Your task to perform on an android device: What's the news in Myanmar? Image 0: 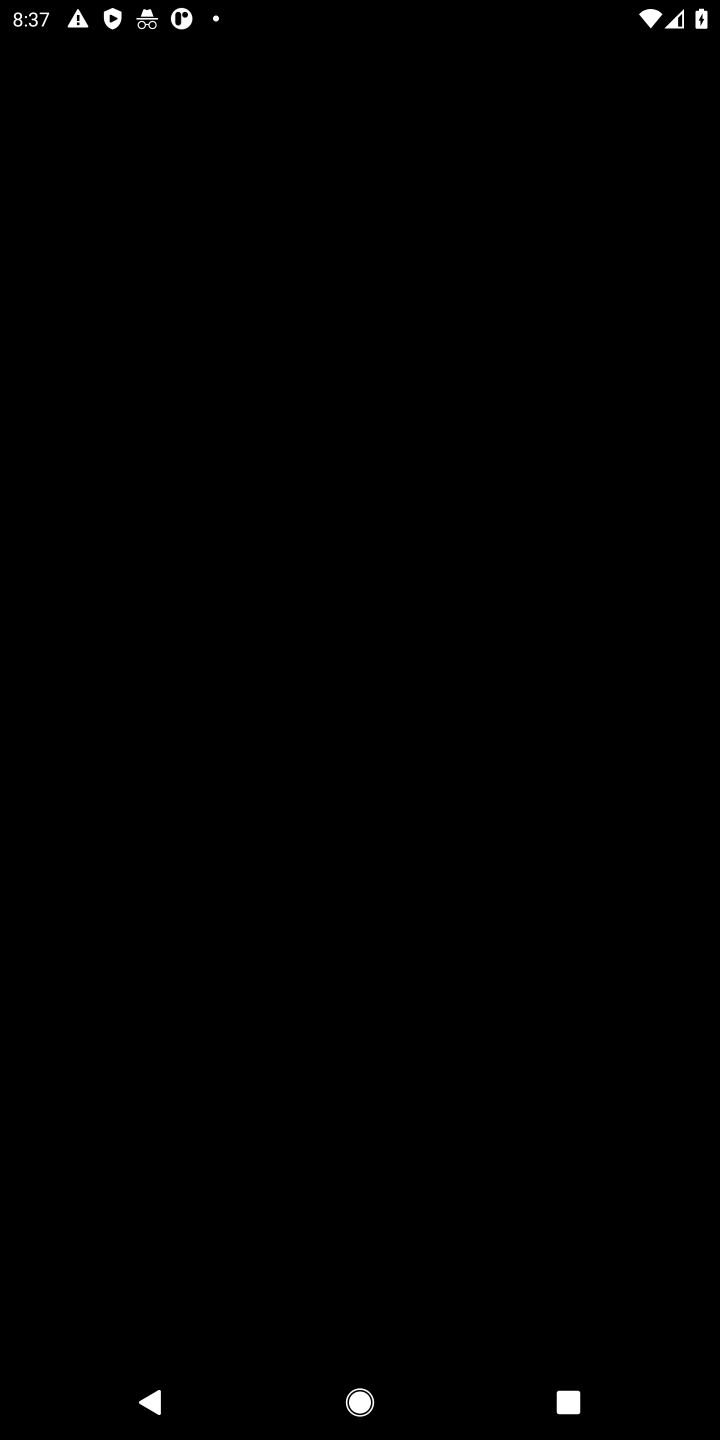
Step 0: press home button
Your task to perform on an android device: What's the news in Myanmar? Image 1: 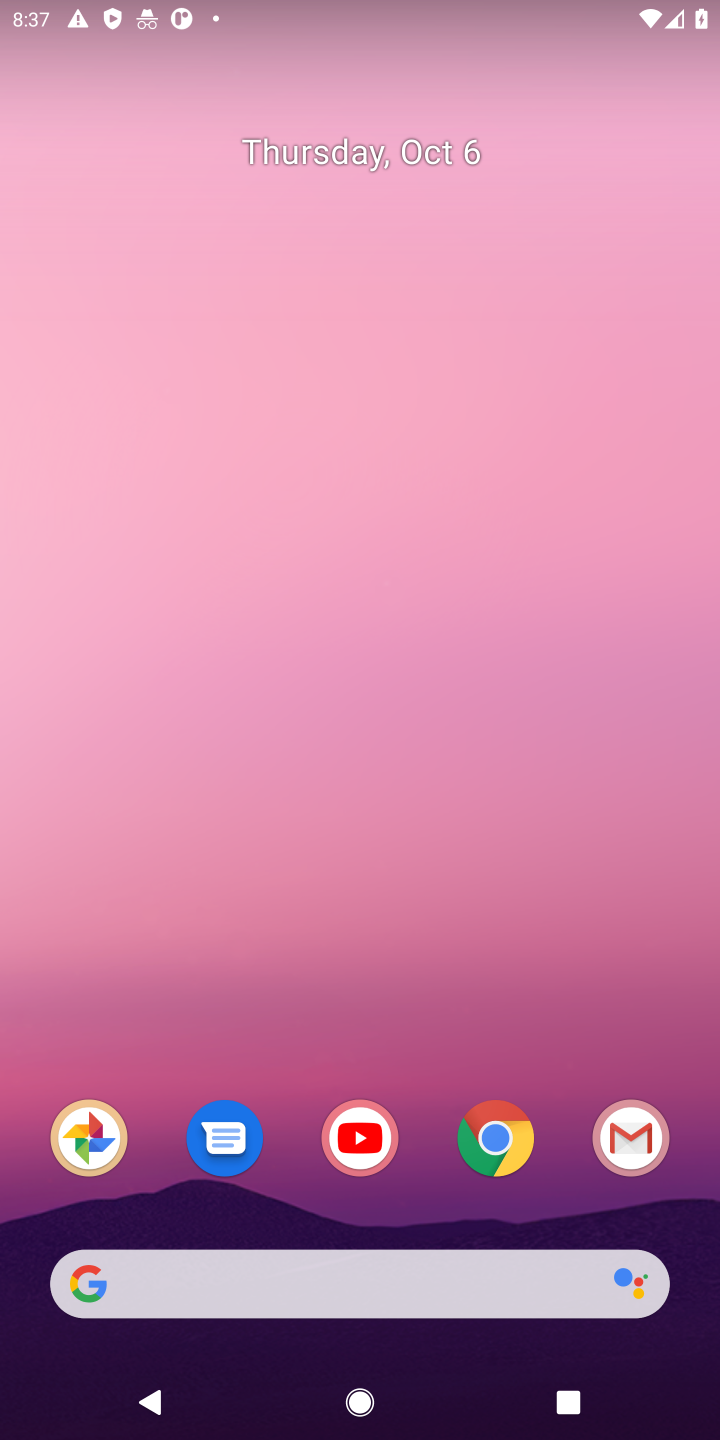
Step 1: click (500, 1132)
Your task to perform on an android device: What's the news in Myanmar? Image 2: 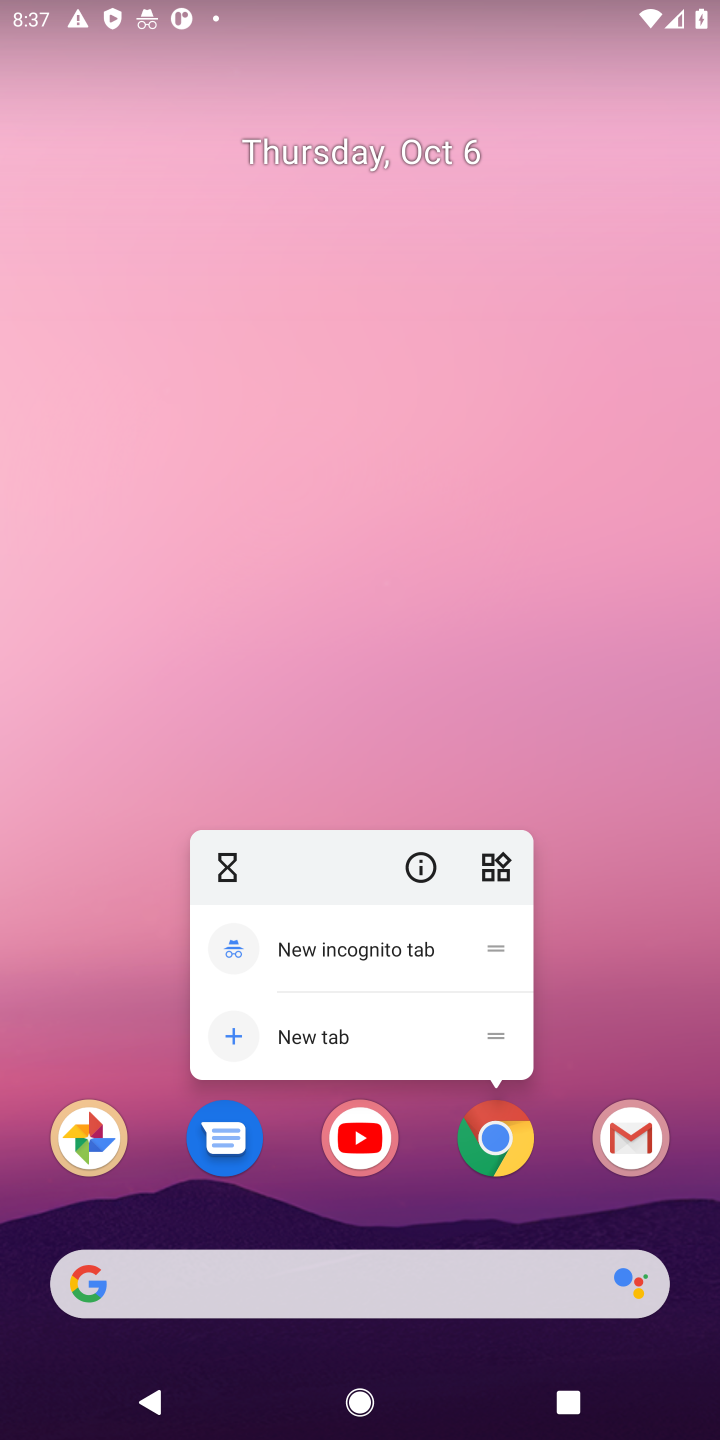
Step 2: click (512, 1138)
Your task to perform on an android device: What's the news in Myanmar? Image 3: 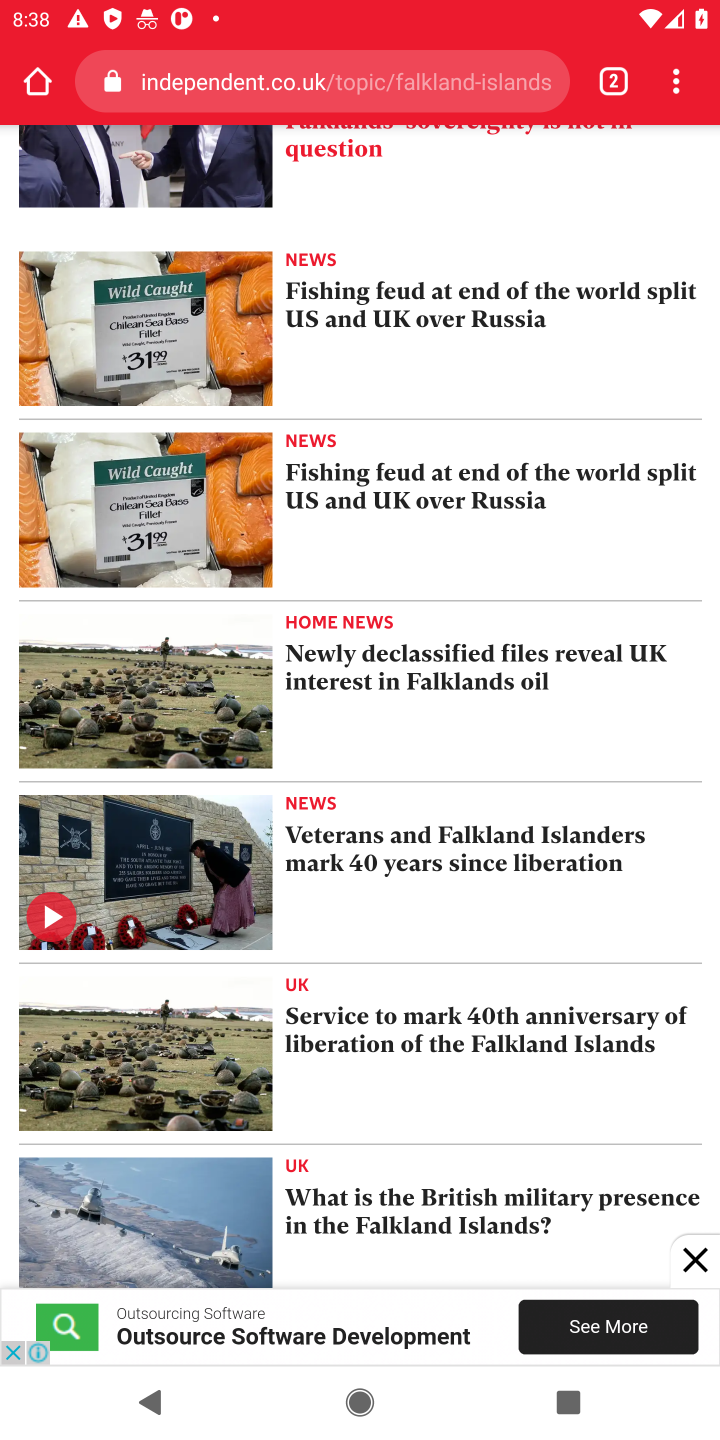
Step 3: click (418, 80)
Your task to perform on an android device: What's the news in Myanmar? Image 4: 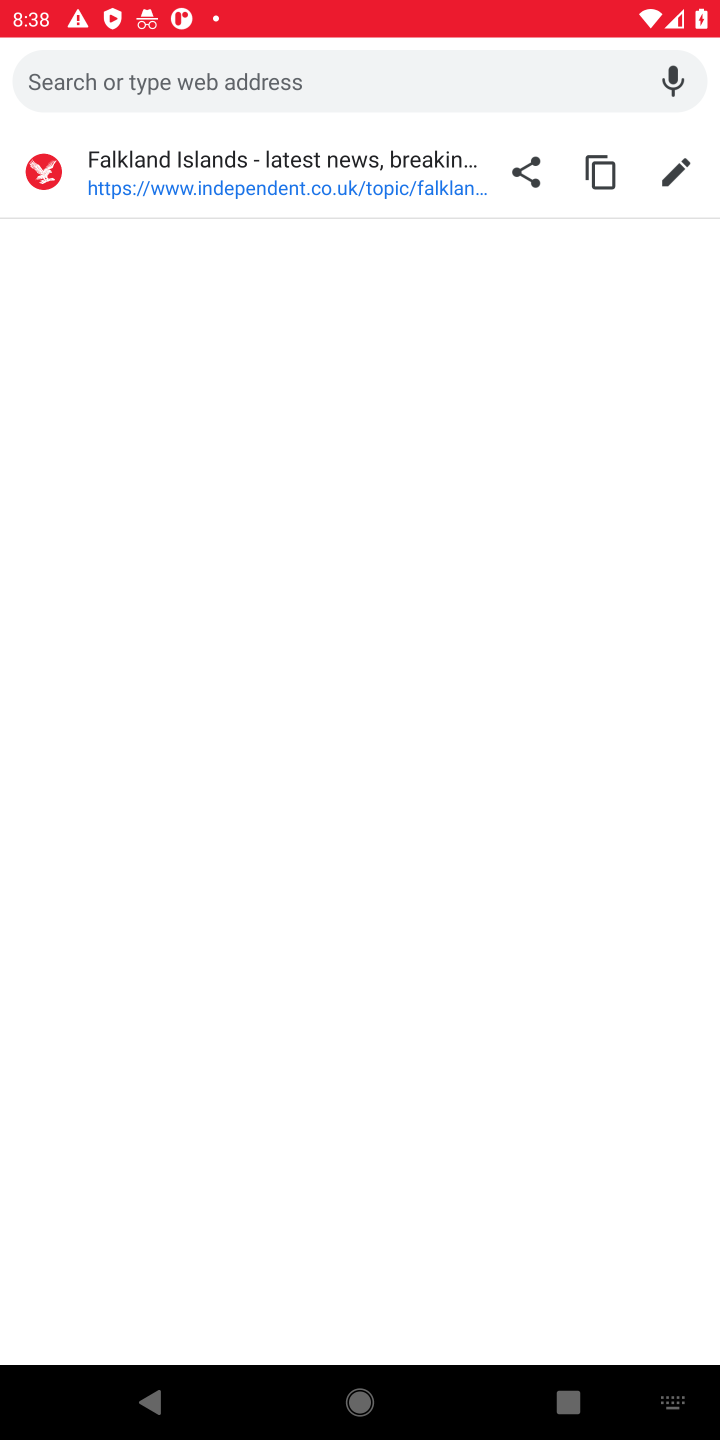
Step 4: type " news in Myanmar"
Your task to perform on an android device: What's the news in Myanmar? Image 5: 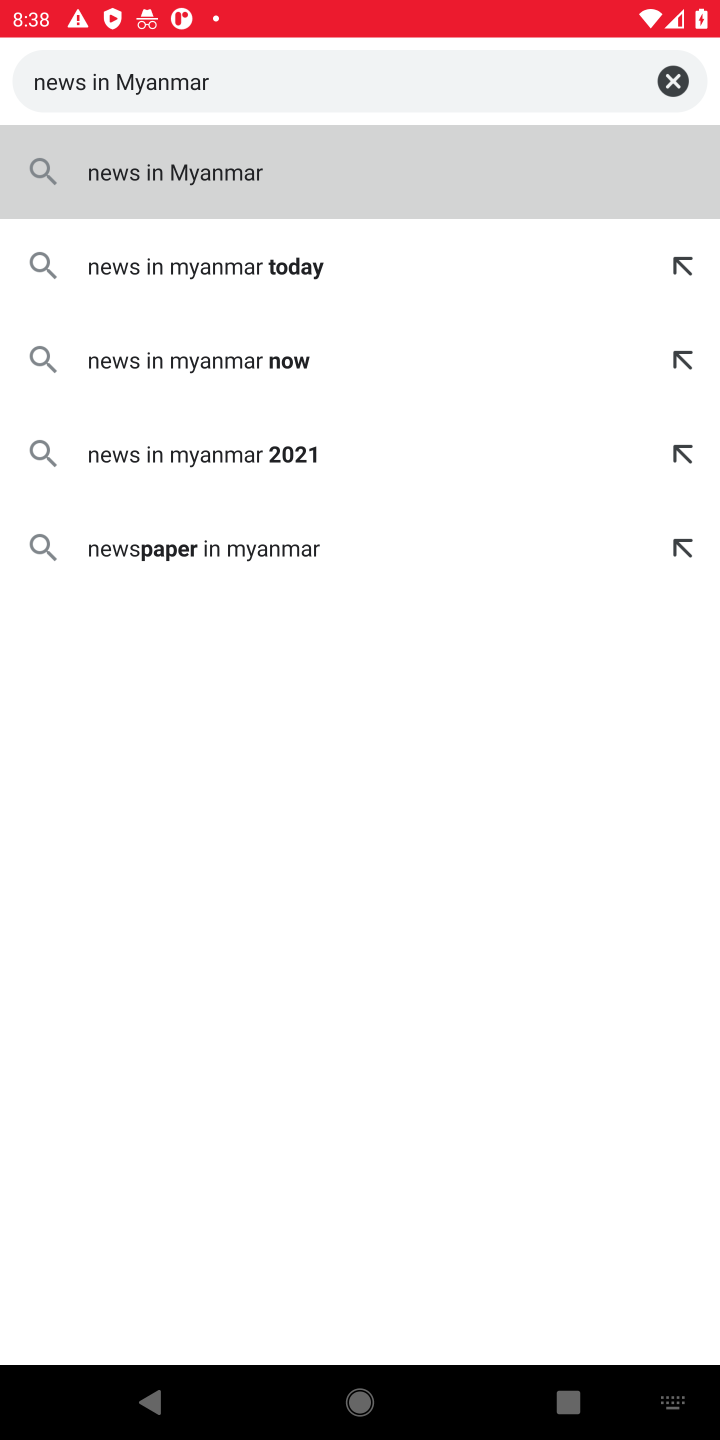
Step 5: click (166, 169)
Your task to perform on an android device: What's the news in Myanmar? Image 6: 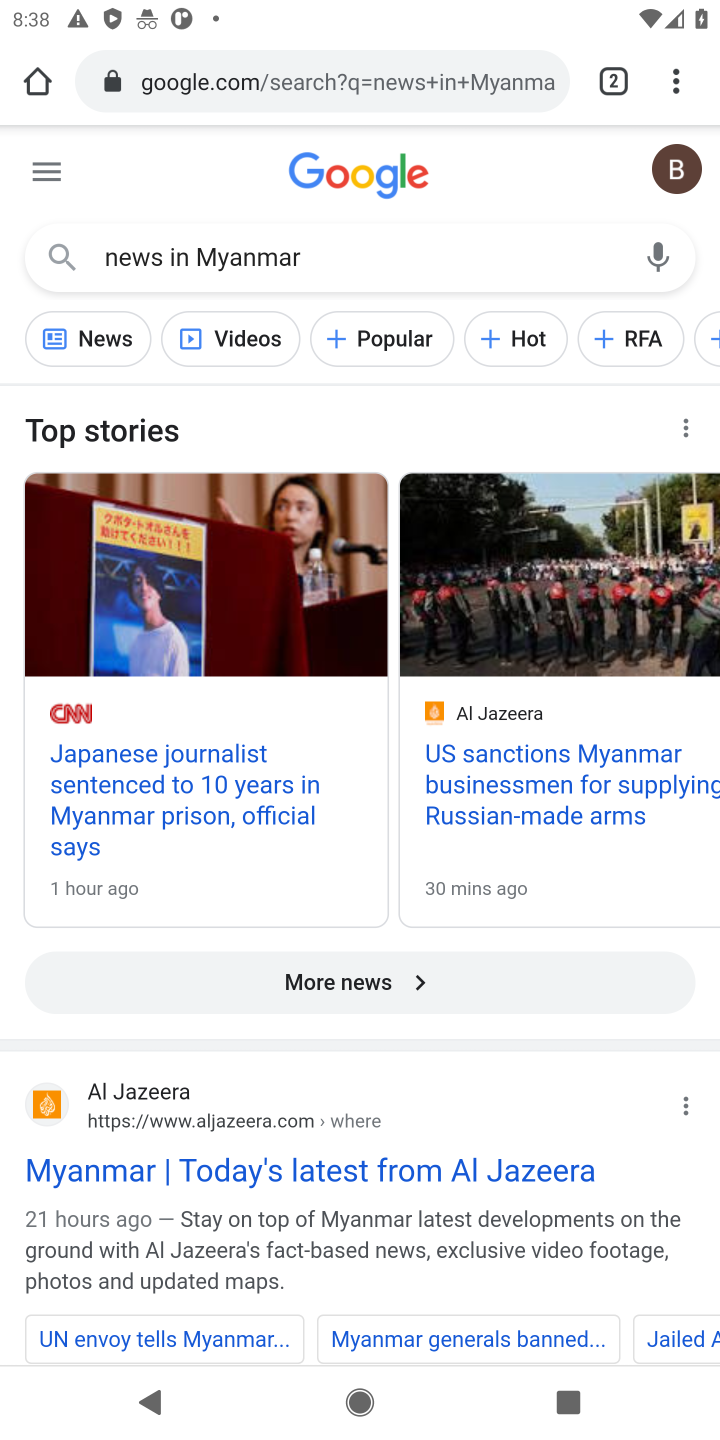
Step 6: drag from (364, 1038) to (414, 438)
Your task to perform on an android device: What's the news in Myanmar? Image 7: 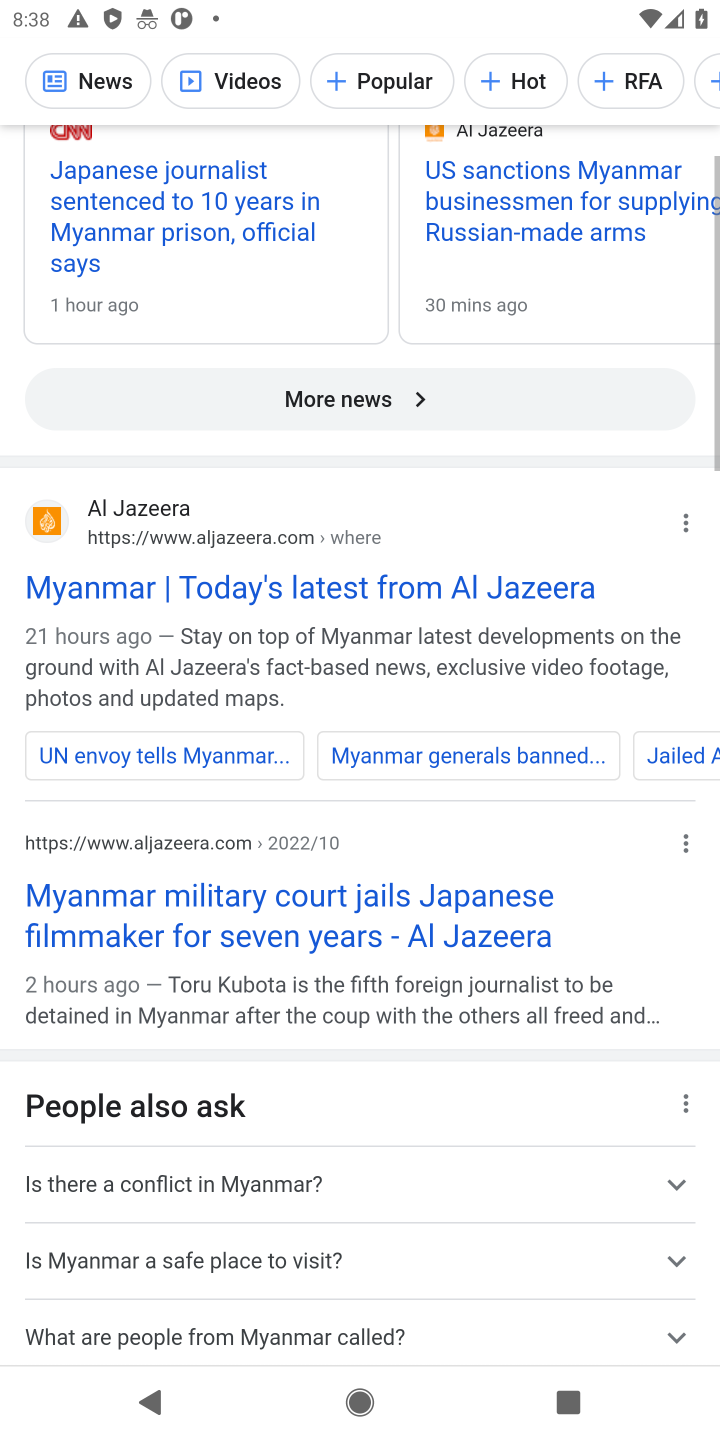
Step 7: drag from (173, 349) to (233, 532)
Your task to perform on an android device: What's the news in Myanmar? Image 8: 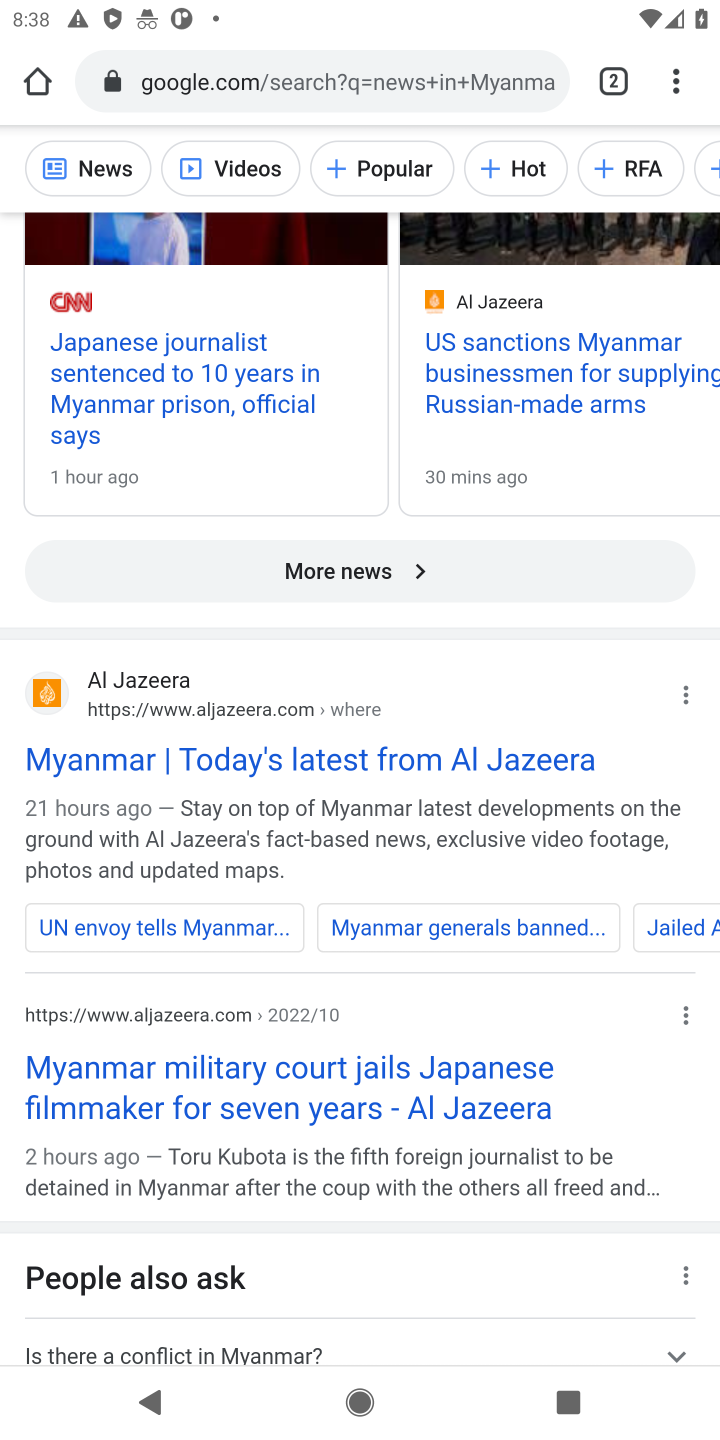
Step 8: drag from (311, 484) to (350, 846)
Your task to perform on an android device: What's the news in Myanmar? Image 9: 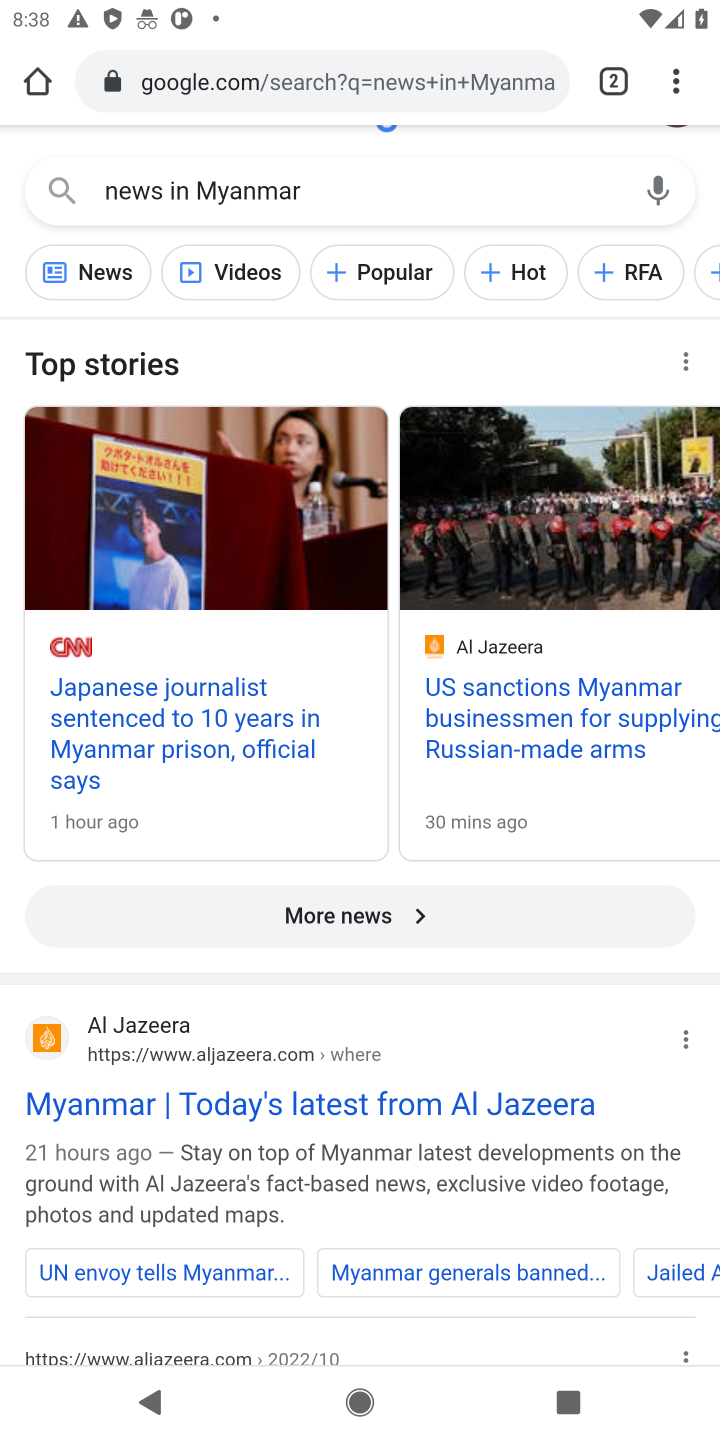
Step 9: click (107, 270)
Your task to perform on an android device: What's the news in Myanmar? Image 10: 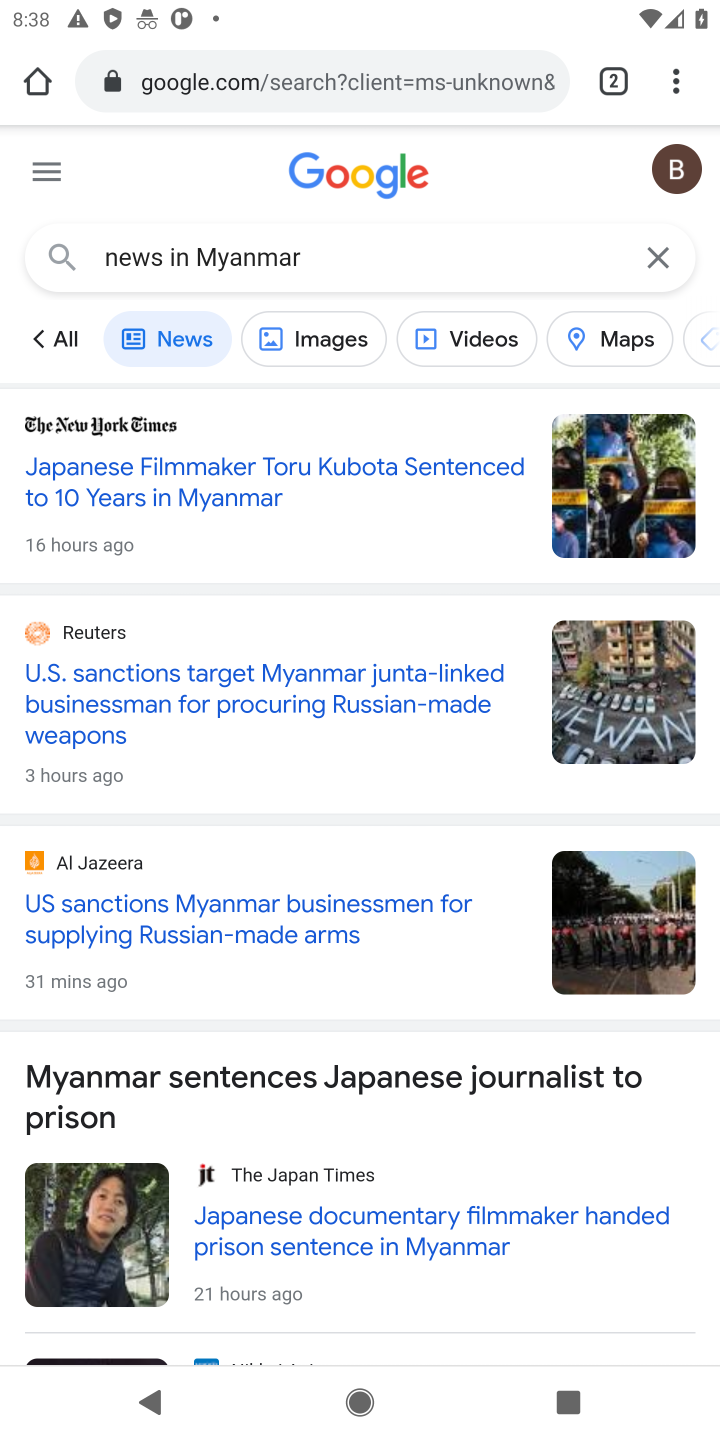
Step 10: task complete